Your task to perform on an android device: turn on bluetooth scan Image 0: 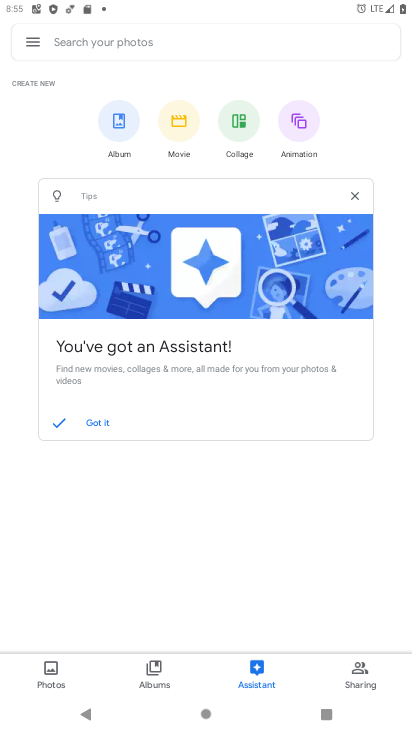
Step 0: press home button
Your task to perform on an android device: turn on bluetooth scan Image 1: 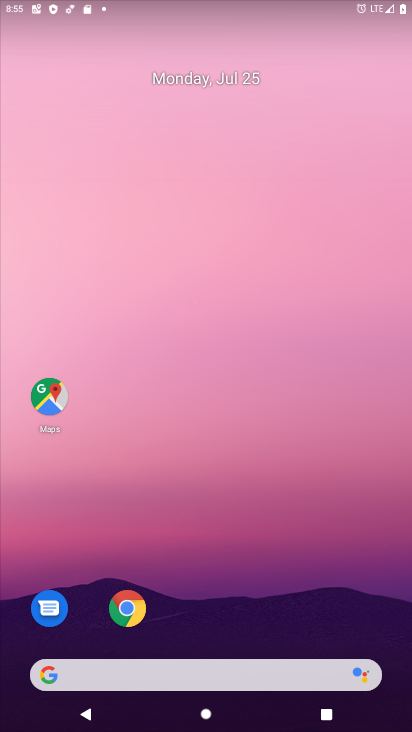
Step 1: drag from (233, 723) to (171, 66)
Your task to perform on an android device: turn on bluetooth scan Image 2: 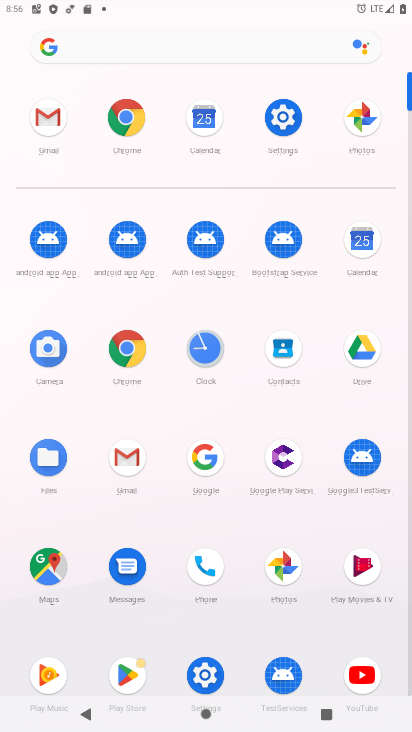
Step 2: click (272, 121)
Your task to perform on an android device: turn on bluetooth scan Image 3: 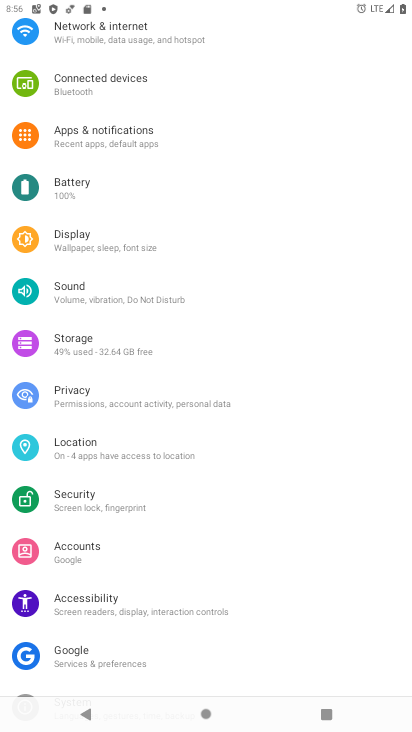
Step 3: click (87, 452)
Your task to perform on an android device: turn on bluetooth scan Image 4: 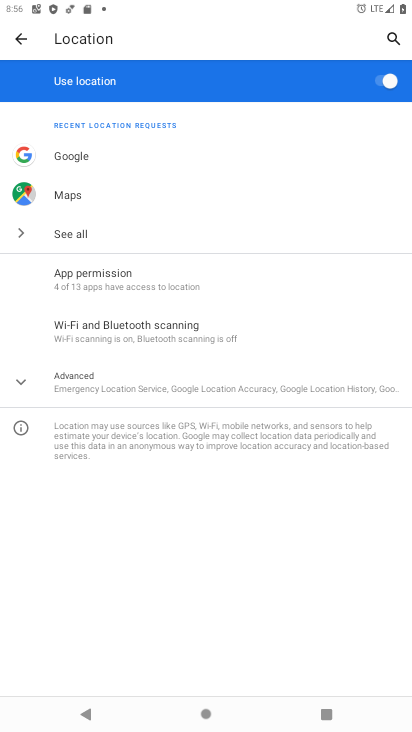
Step 4: click (113, 333)
Your task to perform on an android device: turn on bluetooth scan Image 5: 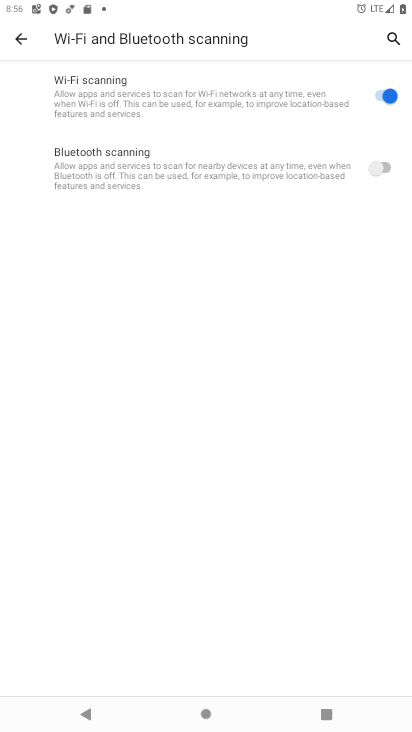
Step 5: click (378, 167)
Your task to perform on an android device: turn on bluetooth scan Image 6: 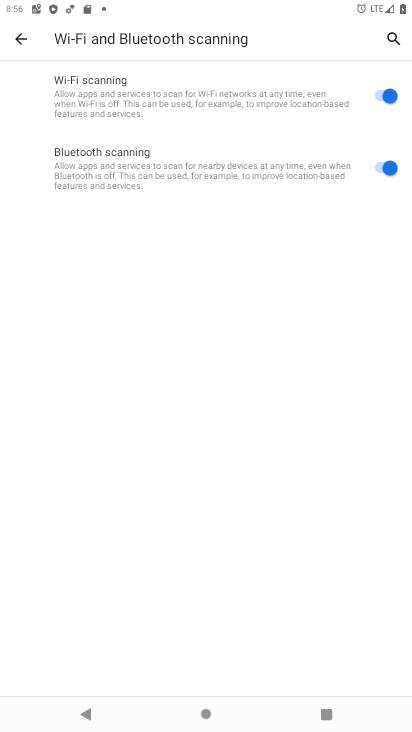
Step 6: task complete